Your task to perform on an android device: Go to Maps Image 0: 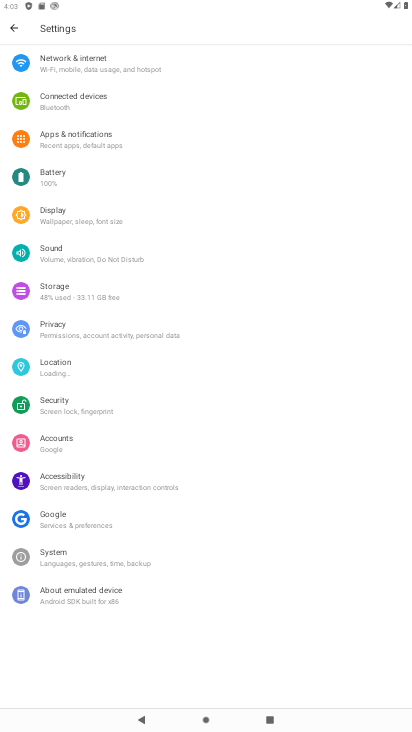
Step 0: press home button
Your task to perform on an android device: Go to Maps Image 1: 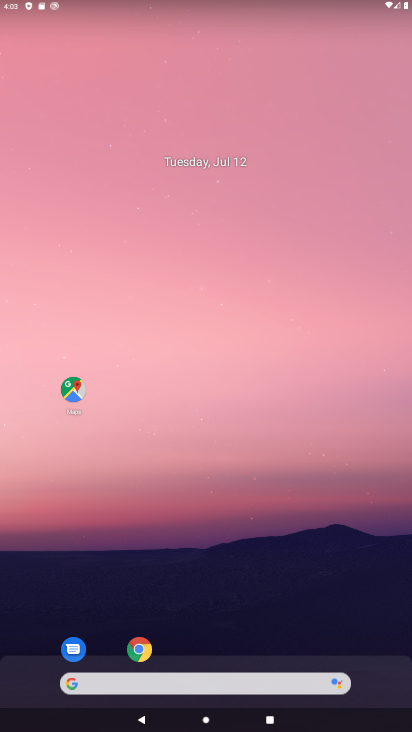
Step 1: click (74, 391)
Your task to perform on an android device: Go to Maps Image 2: 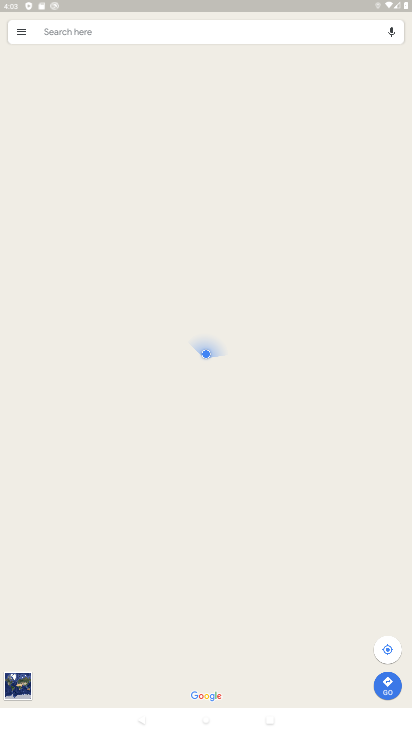
Step 2: task complete